Your task to perform on an android device: toggle data saver in the chrome app Image 0: 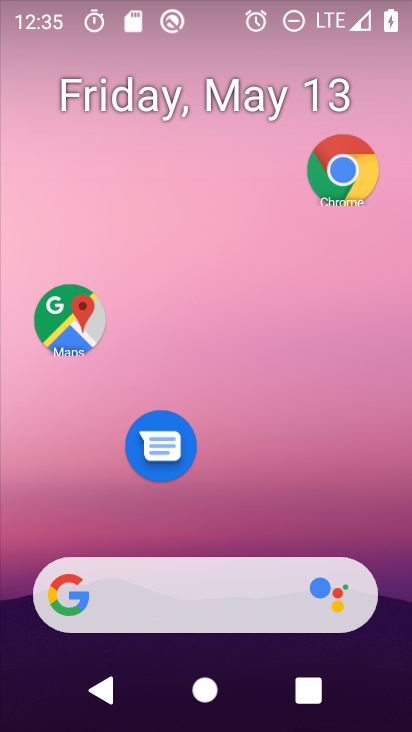
Step 0: drag from (303, 588) to (293, 33)
Your task to perform on an android device: toggle data saver in the chrome app Image 1: 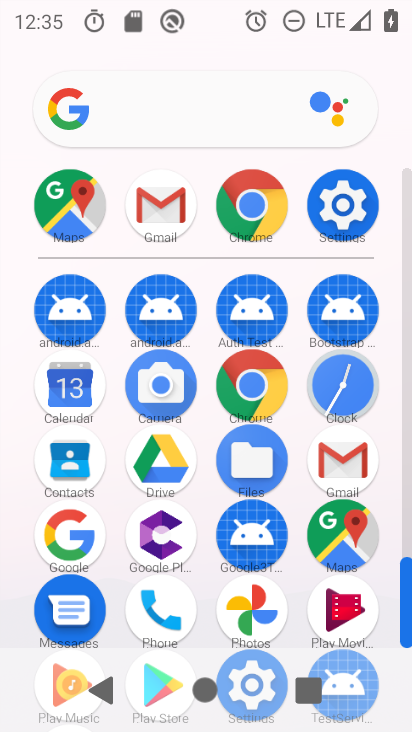
Step 1: click (239, 370)
Your task to perform on an android device: toggle data saver in the chrome app Image 2: 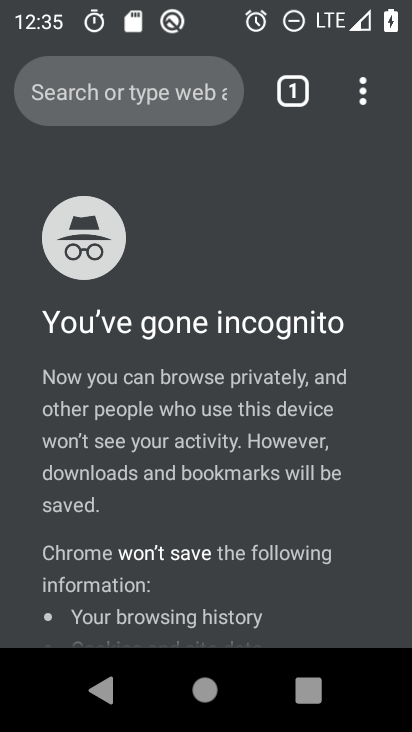
Step 2: drag from (357, 95) to (187, 483)
Your task to perform on an android device: toggle data saver in the chrome app Image 3: 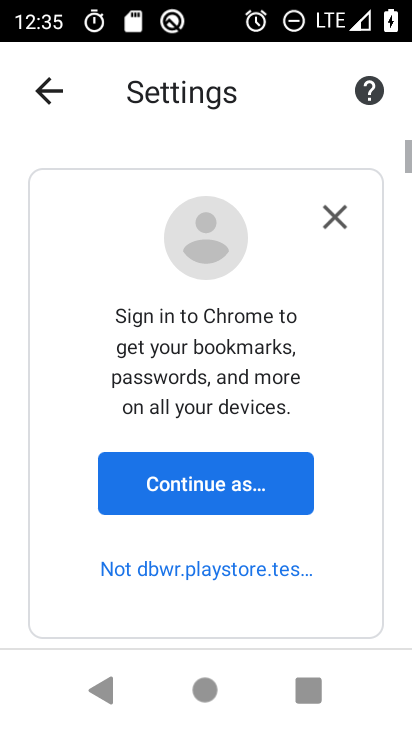
Step 3: drag from (266, 609) to (318, 52)
Your task to perform on an android device: toggle data saver in the chrome app Image 4: 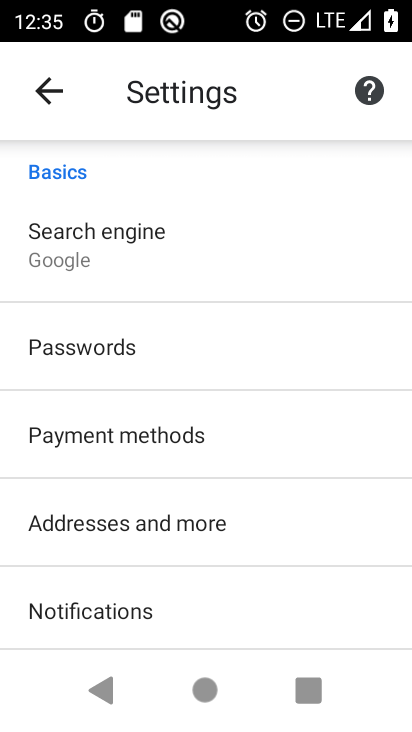
Step 4: drag from (263, 573) to (267, 57)
Your task to perform on an android device: toggle data saver in the chrome app Image 5: 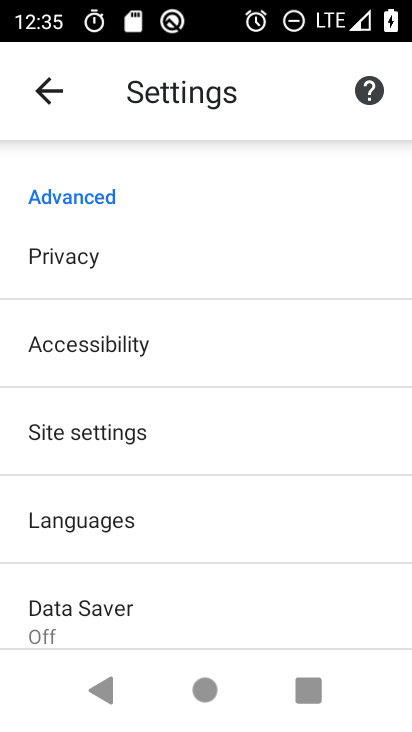
Step 5: click (148, 601)
Your task to perform on an android device: toggle data saver in the chrome app Image 6: 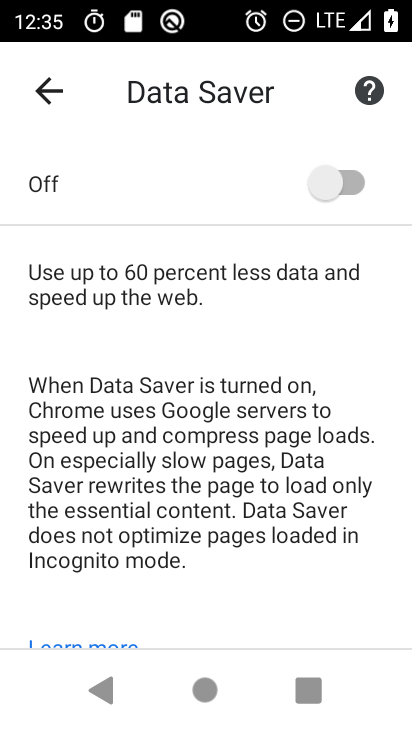
Step 6: click (362, 185)
Your task to perform on an android device: toggle data saver in the chrome app Image 7: 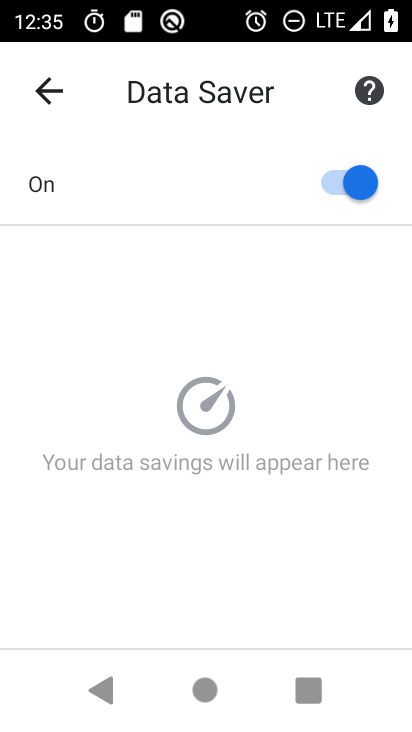
Step 7: task complete